Your task to perform on an android device: Open wifi settings Image 0: 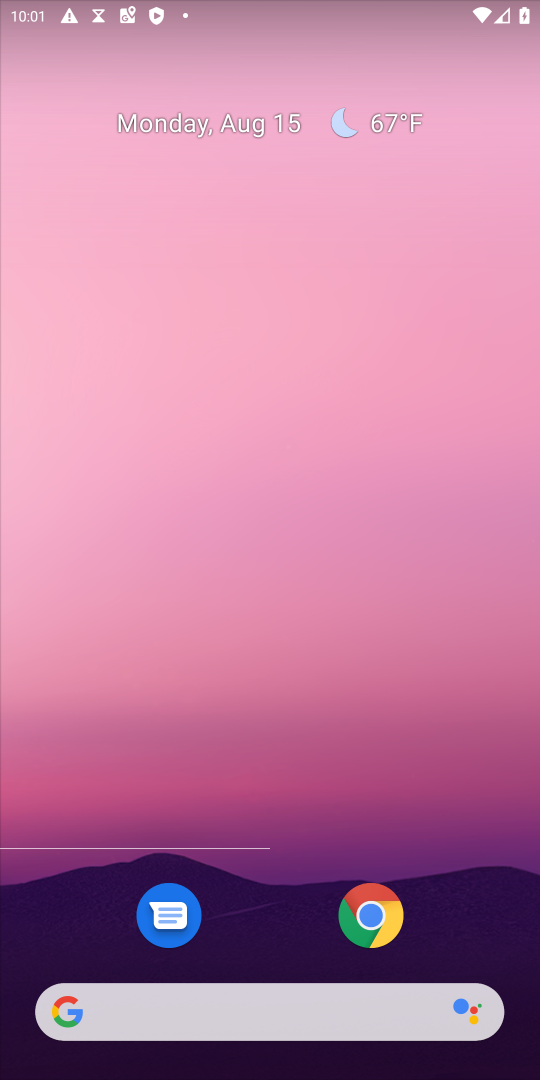
Step 0: press home button
Your task to perform on an android device: Open wifi settings Image 1: 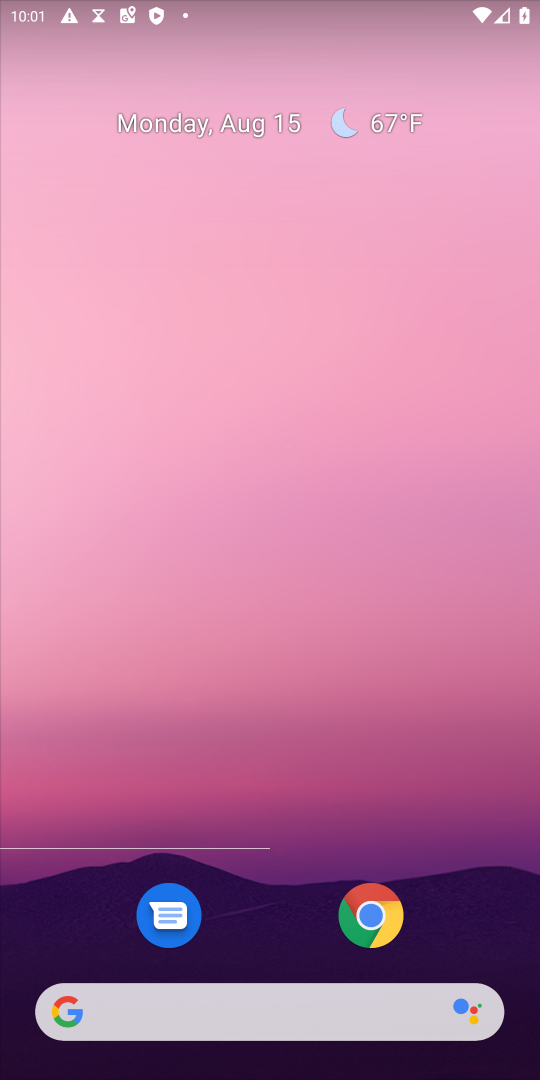
Step 1: drag from (267, 955) to (127, 250)
Your task to perform on an android device: Open wifi settings Image 2: 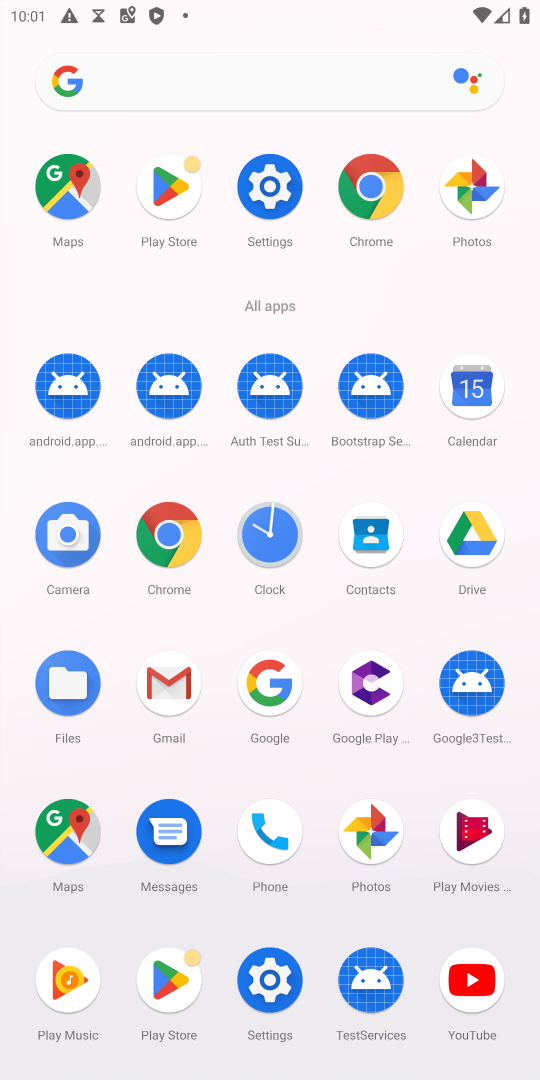
Step 2: click (279, 178)
Your task to perform on an android device: Open wifi settings Image 3: 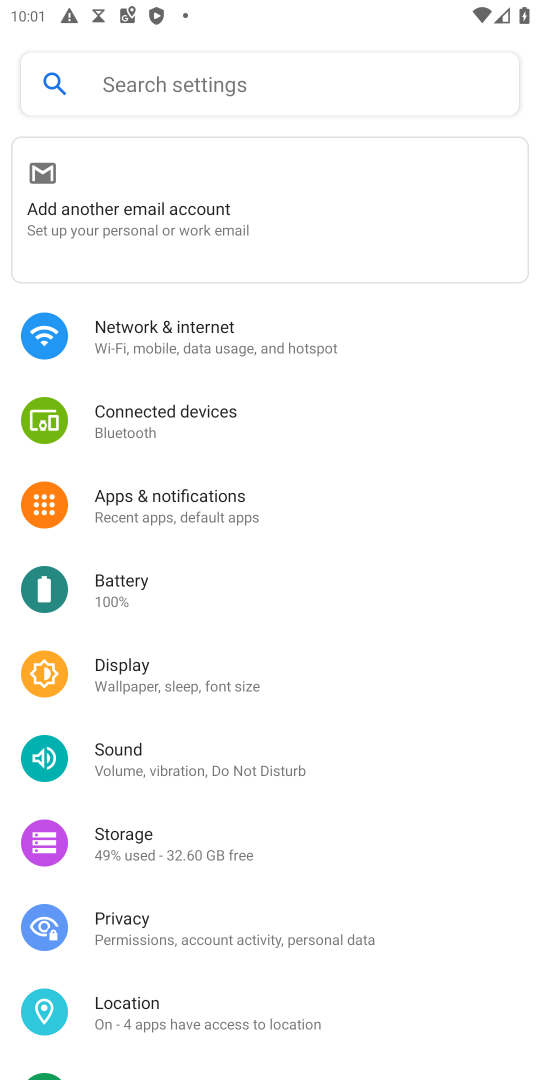
Step 3: click (256, 344)
Your task to perform on an android device: Open wifi settings Image 4: 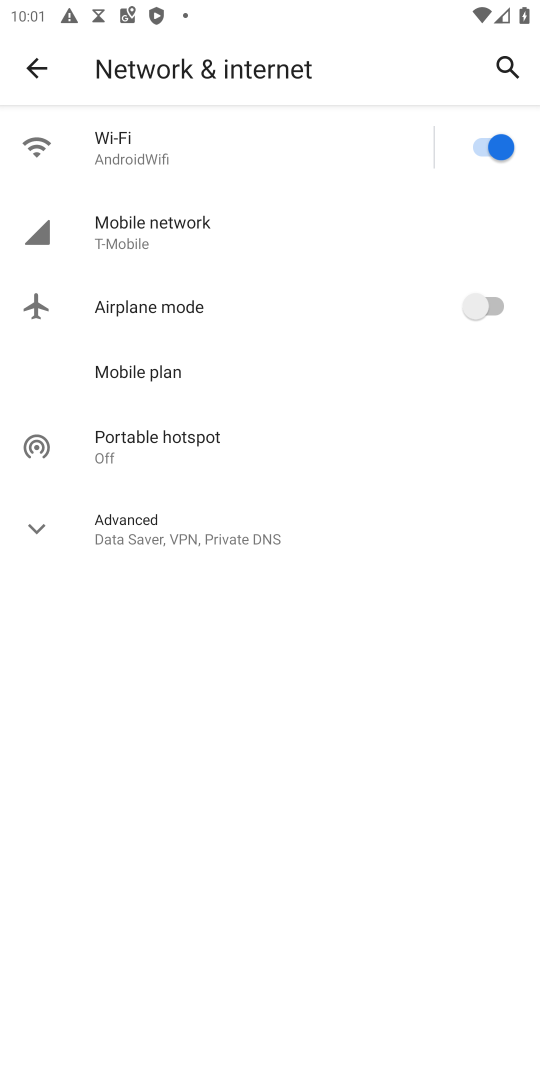
Step 4: click (187, 147)
Your task to perform on an android device: Open wifi settings Image 5: 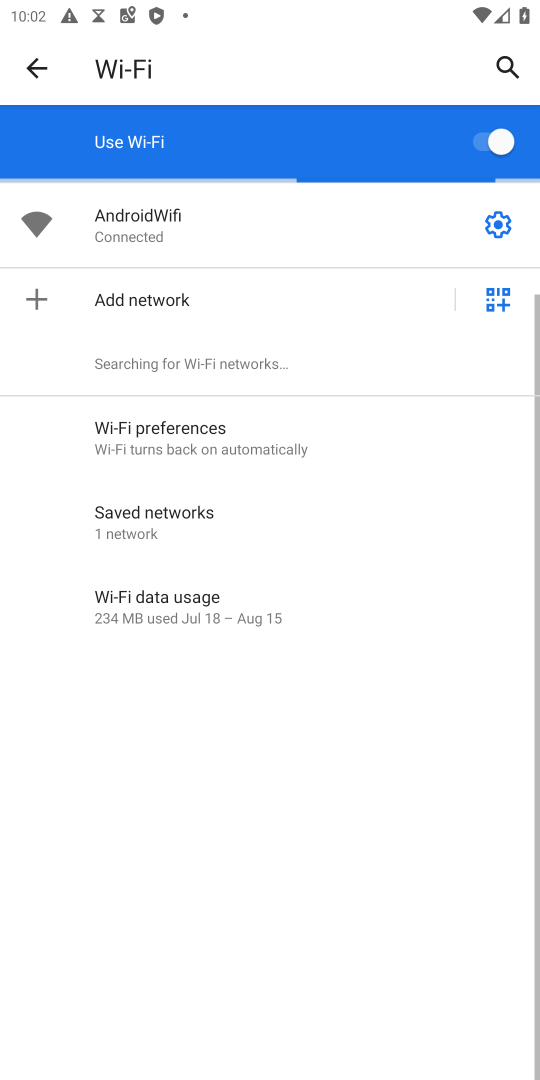
Step 5: task complete